Your task to perform on an android device: Open Google Image 0: 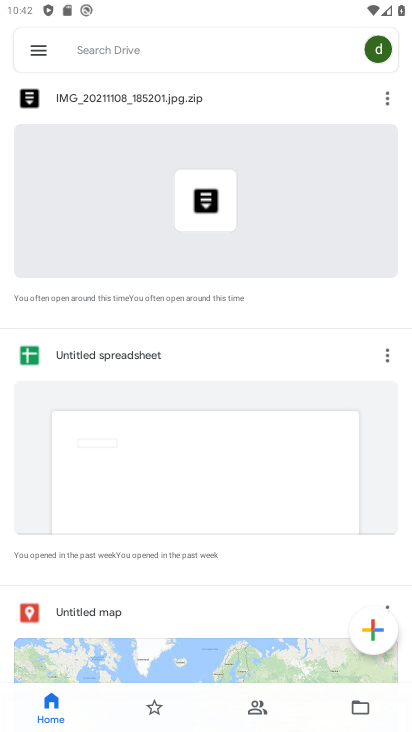
Step 0: press home button
Your task to perform on an android device: Open Google Image 1: 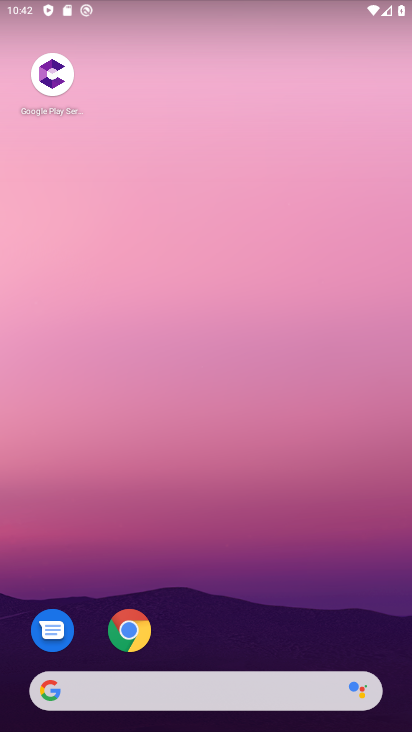
Step 1: drag from (223, 591) to (247, 75)
Your task to perform on an android device: Open Google Image 2: 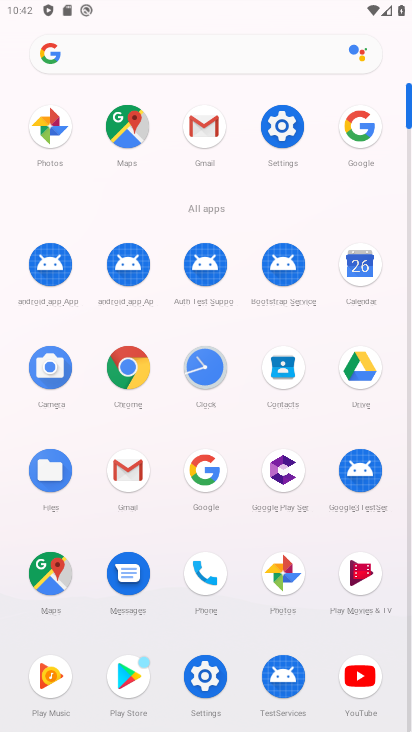
Step 2: click (206, 467)
Your task to perform on an android device: Open Google Image 3: 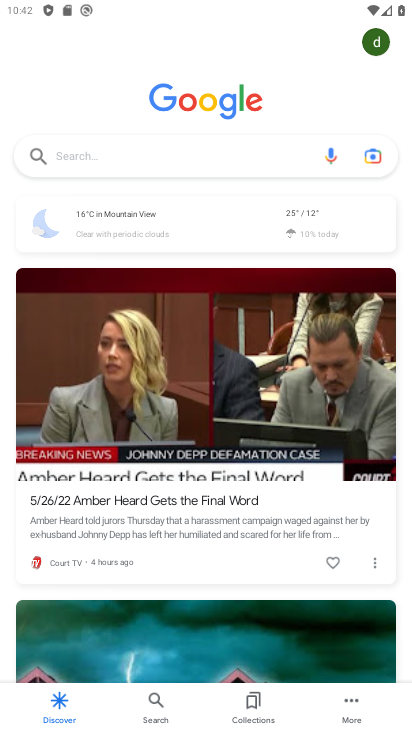
Step 3: task complete